Your task to perform on an android device: turn on notifications settings in the gmail app Image 0: 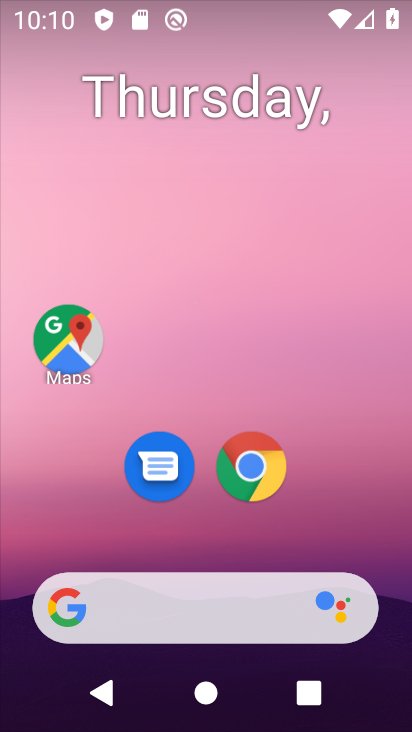
Step 0: drag from (306, 543) to (332, 38)
Your task to perform on an android device: turn on notifications settings in the gmail app Image 1: 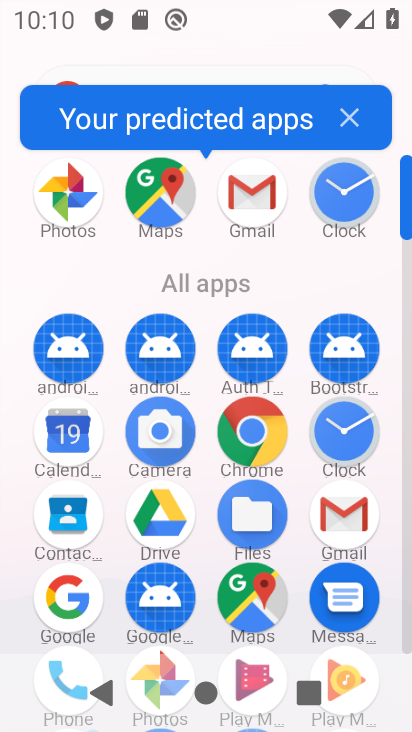
Step 1: click (257, 210)
Your task to perform on an android device: turn on notifications settings in the gmail app Image 2: 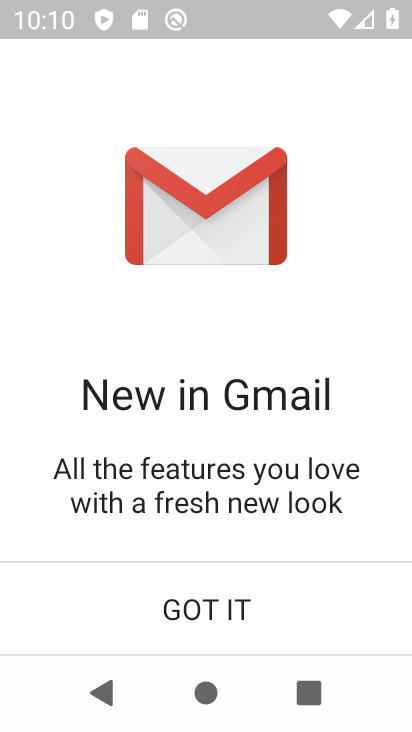
Step 2: click (159, 599)
Your task to perform on an android device: turn on notifications settings in the gmail app Image 3: 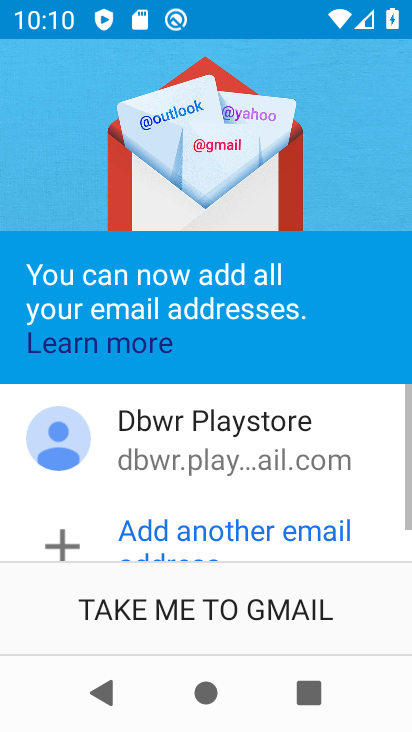
Step 3: click (159, 599)
Your task to perform on an android device: turn on notifications settings in the gmail app Image 4: 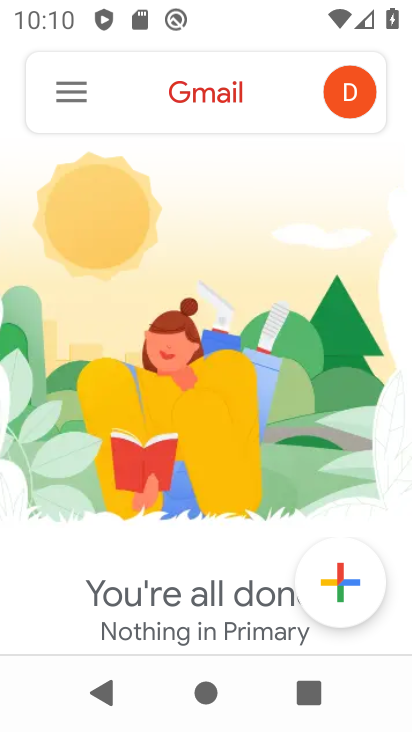
Step 4: click (71, 103)
Your task to perform on an android device: turn on notifications settings in the gmail app Image 5: 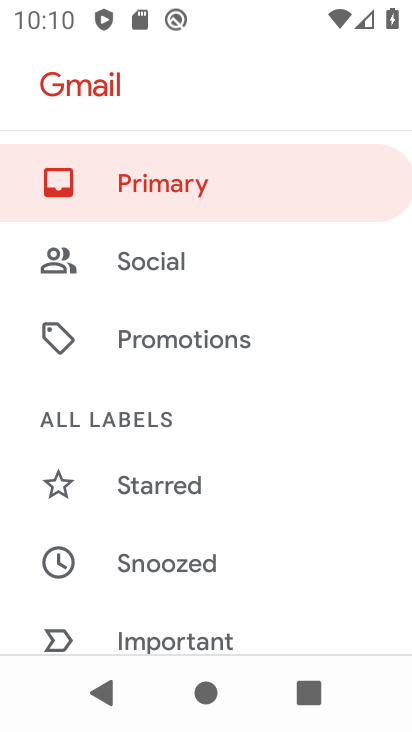
Step 5: drag from (168, 637) to (238, 191)
Your task to perform on an android device: turn on notifications settings in the gmail app Image 6: 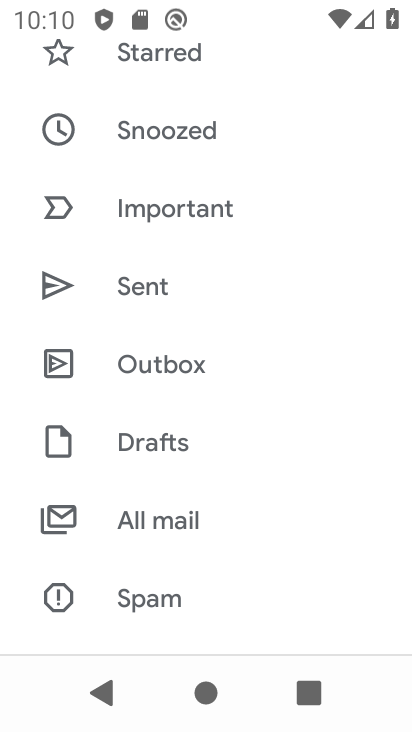
Step 6: drag from (184, 609) to (248, 188)
Your task to perform on an android device: turn on notifications settings in the gmail app Image 7: 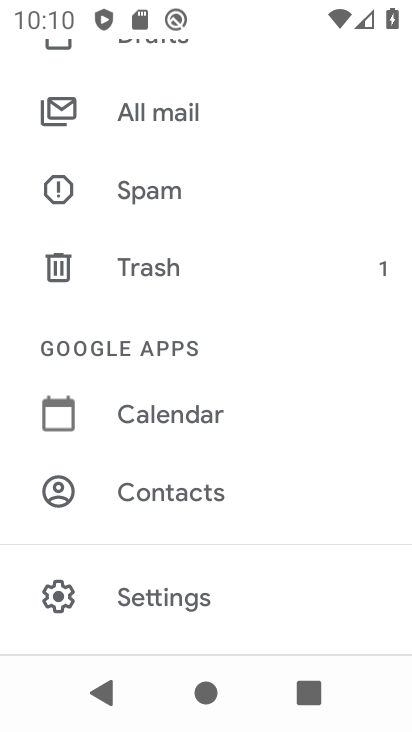
Step 7: click (157, 592)
Your task to perform on an android device: turn on notifications settings in the gmail app Image 8: 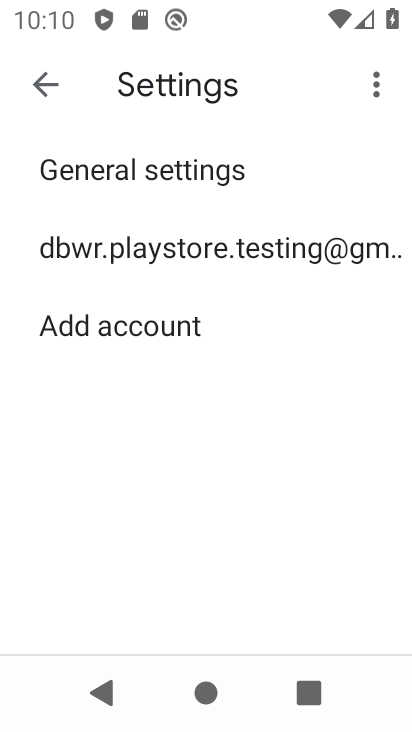
Step 8: click (119, 241)
Your task to perform on an android device: turn on notifications settings in the gmail app Image 9: 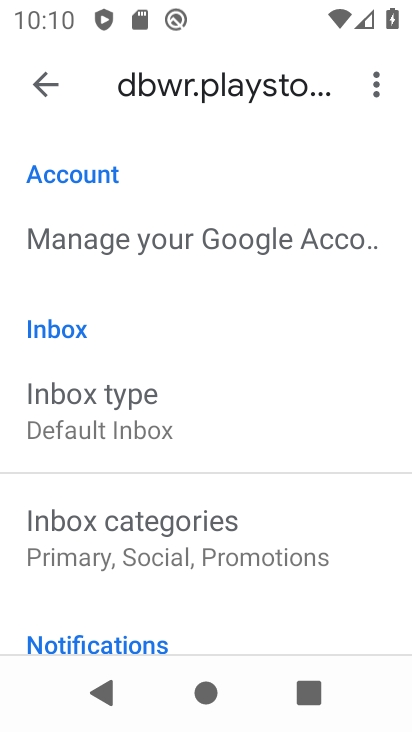
Step 9: drag from (139, 564) to (176, 350)
Your task to perform on an android device: turn on notifications settings in the gmail app Image 10: 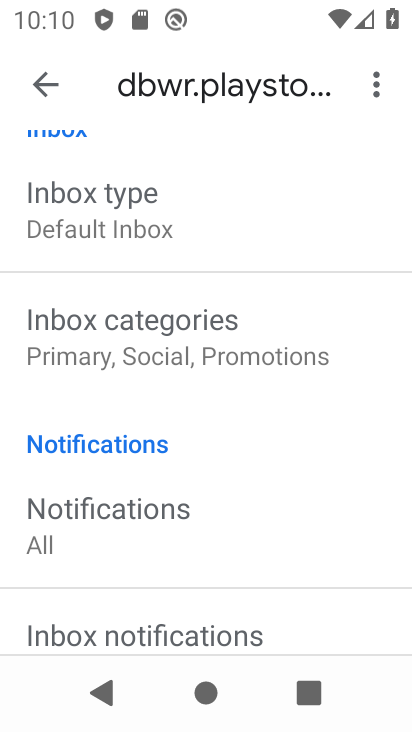
Step 10: click (139, 510)
Your task to perform on an android device: turn on notifications settings in the gmail app Image 11: 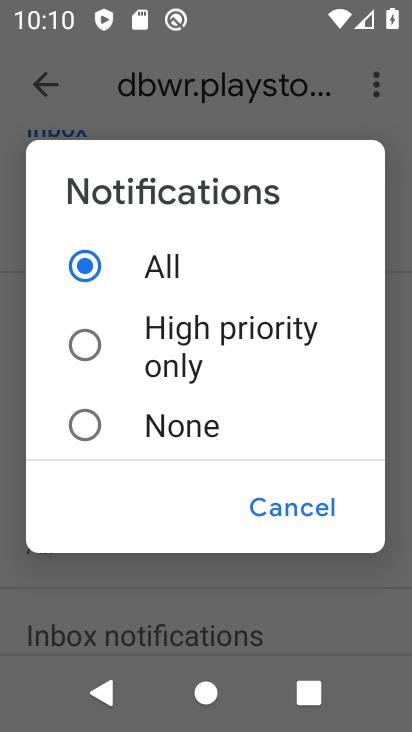
Step 11: task complete